Your task to perform on an android device: Add "razer nari" to the cart on bestbuy, then select checkout. Image 0: 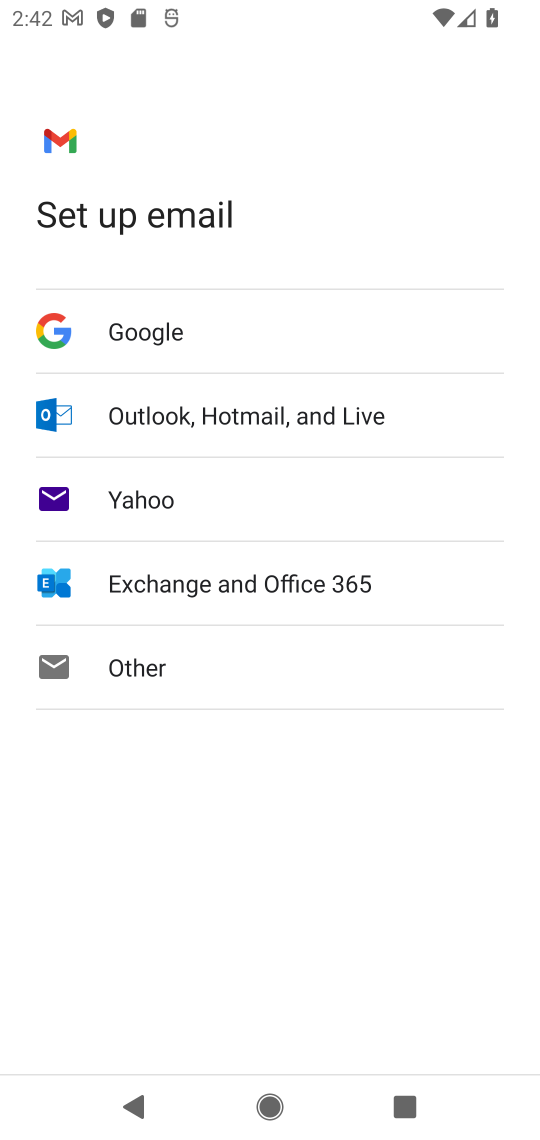
Step 0: press home button
Your task to perform on an android device: Add "razer nari" to the cart on bestbuy, then select checkout. Image 1: 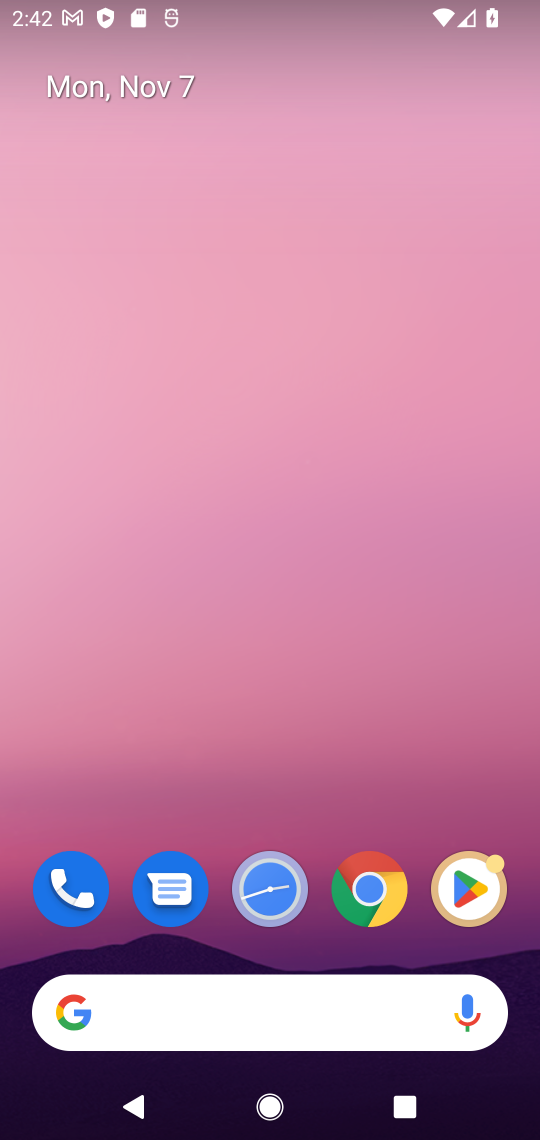
Step 1: click (366, 905)
Your task to perform on an android device: Add "razer nari" to the cart on bestbuy, then select checkout. Image 2: 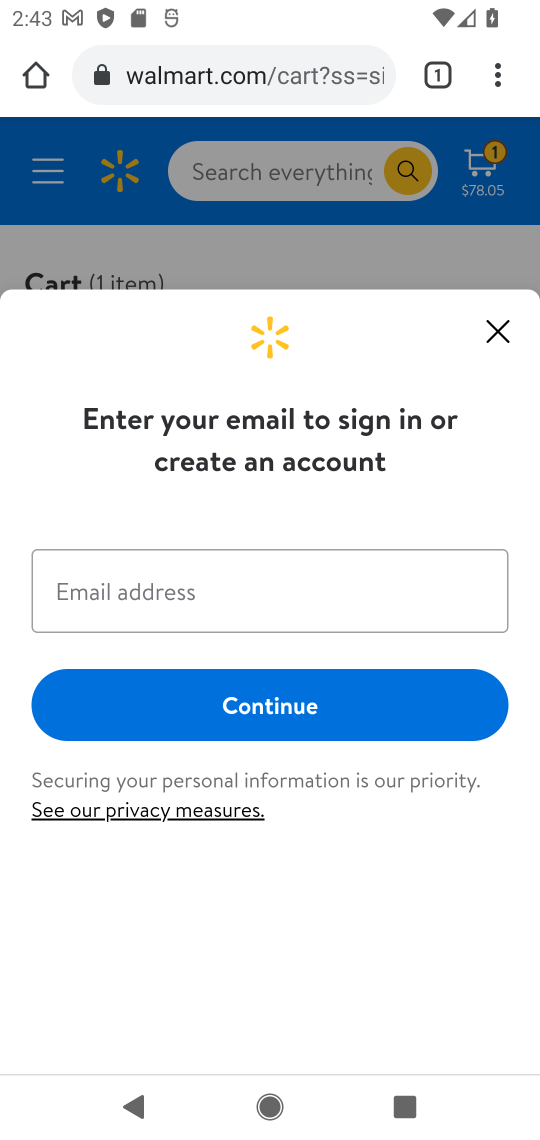
Step 2: click (255, 94)
Your task to perform on an android device: Add "razer nari" to the cart on bestbuy, then select checkout. Image 3: 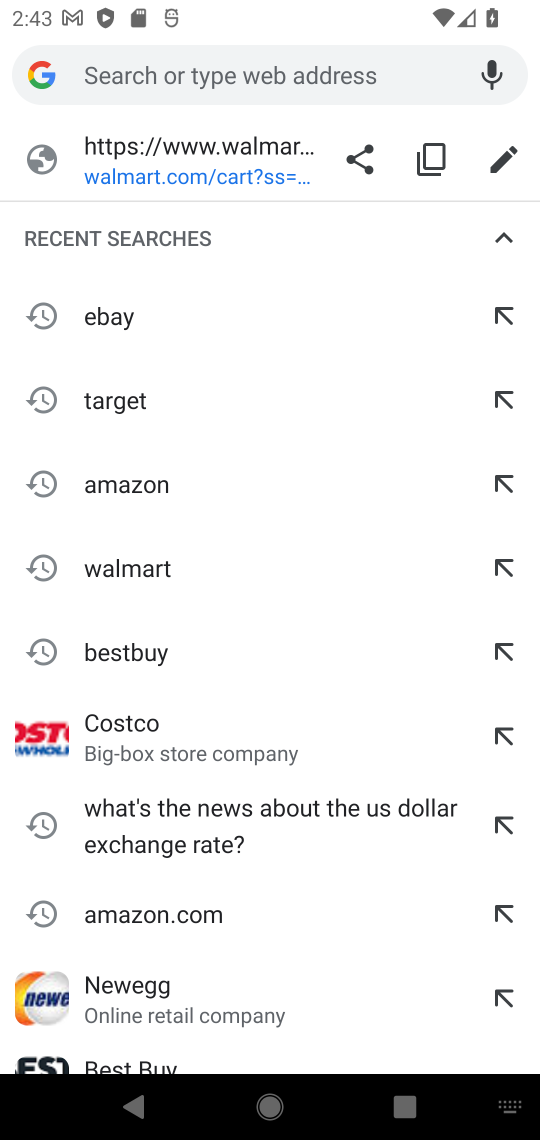
Step 3: type "bestbuy"
Your task to perform on an android device: Add "razer nari" to the cart on bestbuy, then select checkout. Image 4: 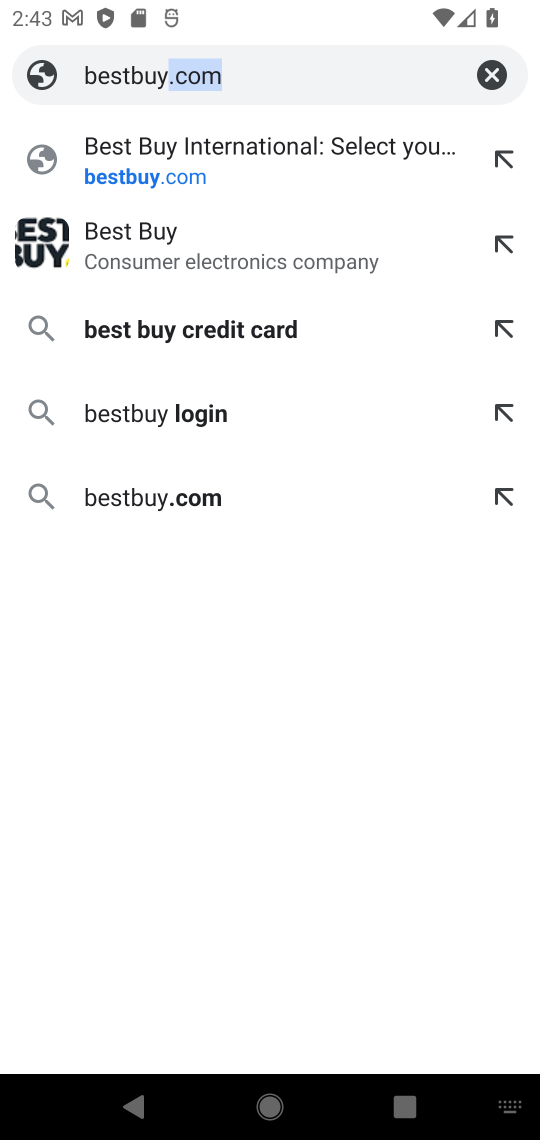
Step 4: click (211, 161)
Your task to perform on an android device: Add "razer nari" to the cart on bestbuy, then select checkout. Image 5: 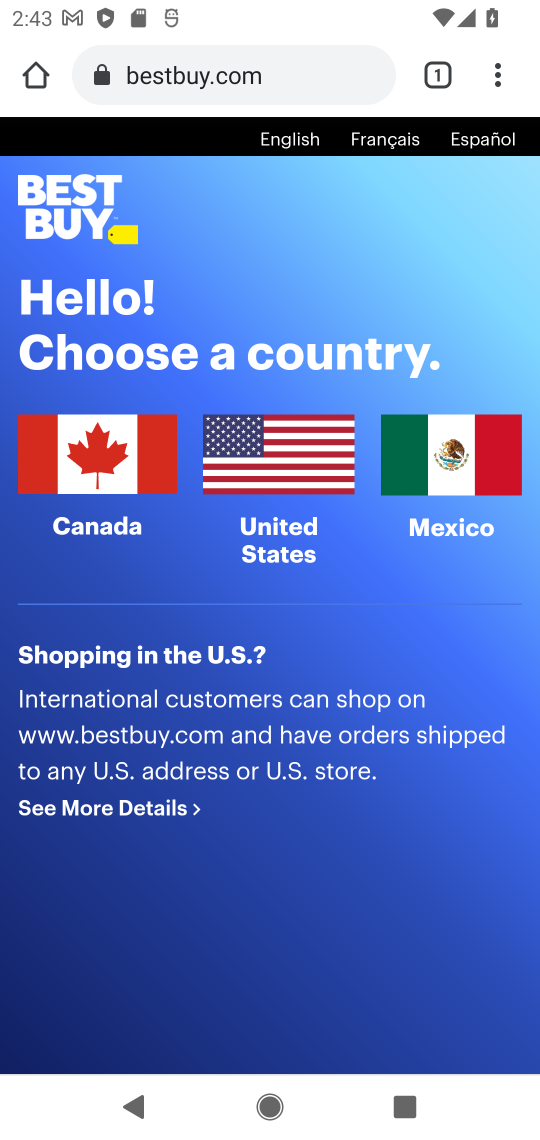
Step 5: click (267, 513)
Your task to perform on an android device: Add "razer nari" to the cart on bestbuy, then select checkout. Image 6: 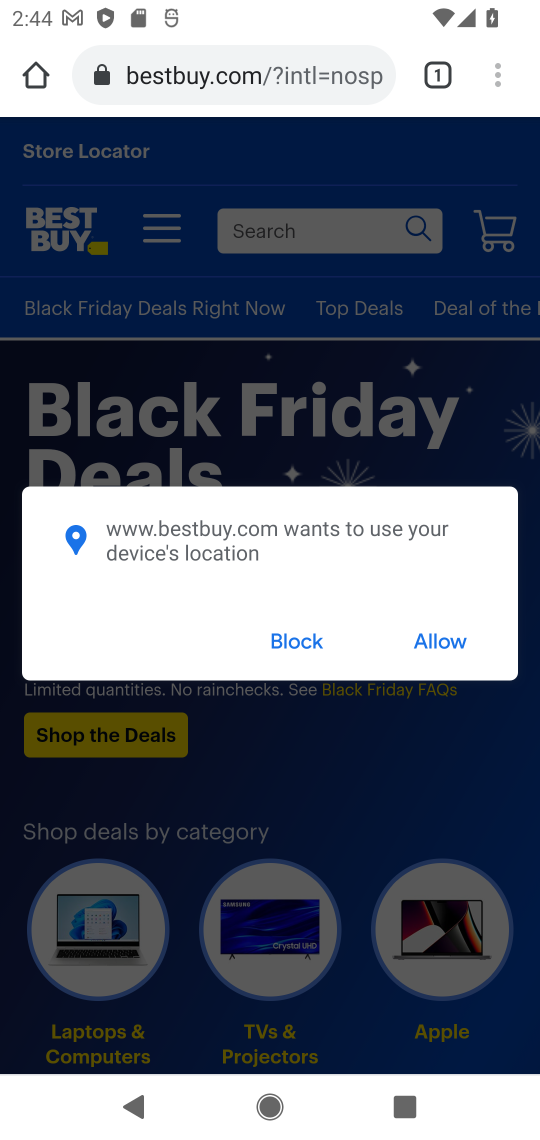
Step 6: click (435, 645)
Your task to perform on an android device: Add "razer nari" to the cart on bestbuy, then select checkout. Image 7: 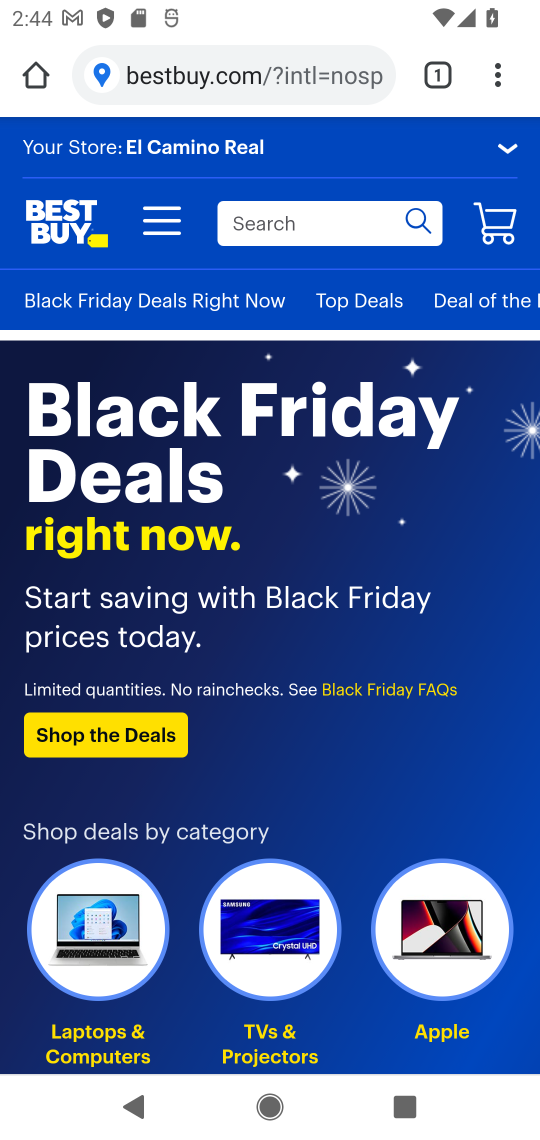
Step 7: click (310, 211)
Your task to perform on an android device: Add "razer nari" to the cart on bestbuy, then select checkout. Image 8: 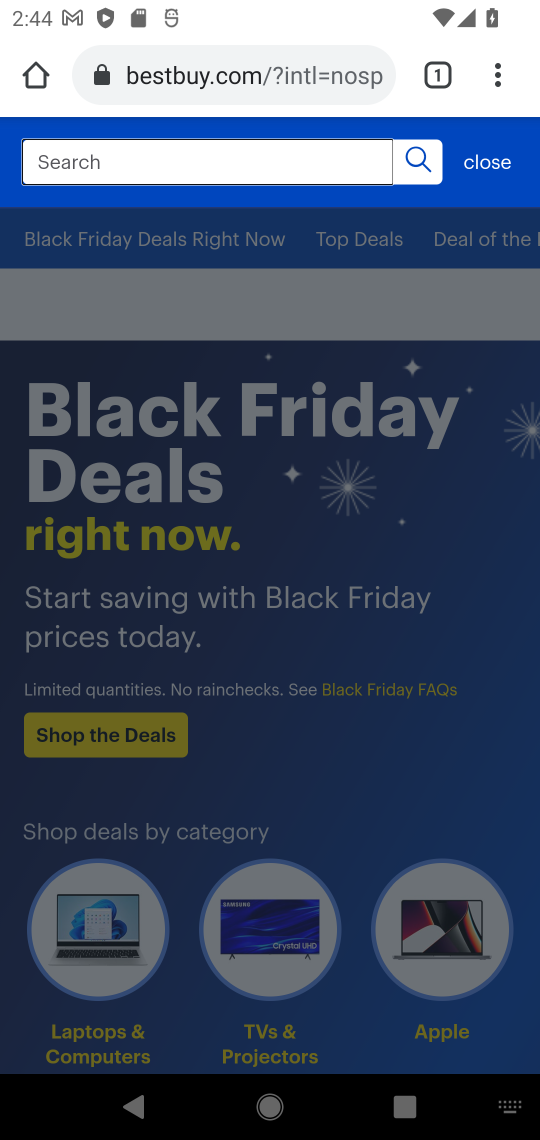
Step 8: type "razer nari"
Your task to perform on an android device: Add "razer nari" to the cart on bestbuy, then select checkout. Image 9: 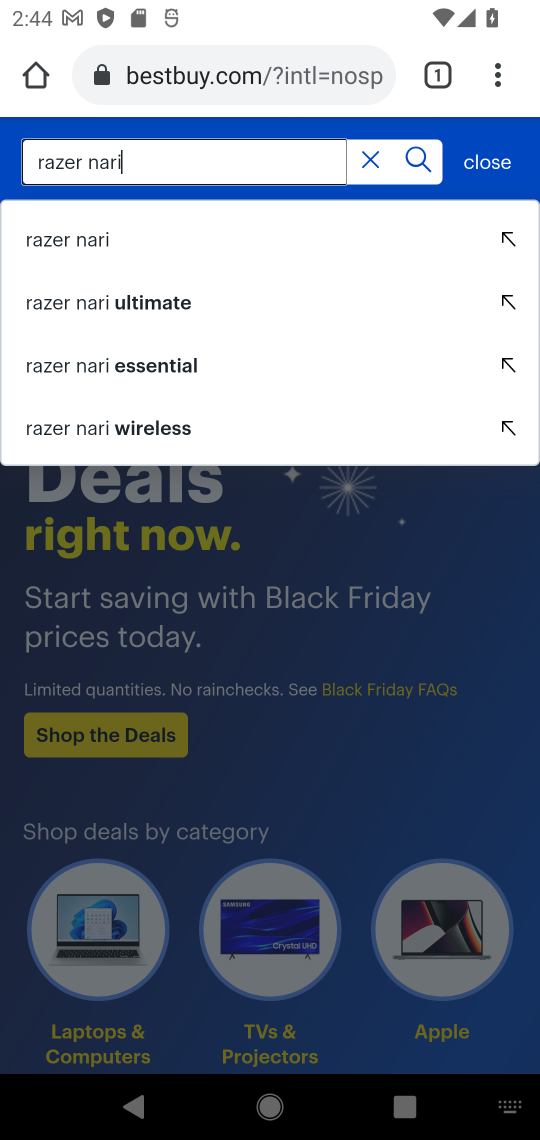
Step 9: type "["
Your task to perform on an android device: Add "razer nari" to the cart on bestbuy, then select checkout. Image 10: 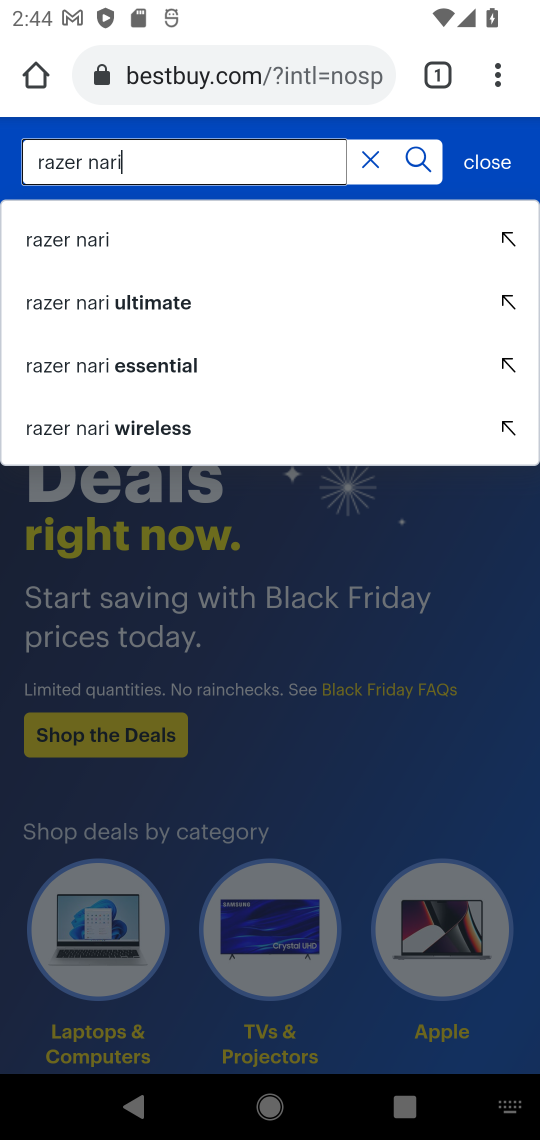
Step 10: press enter
Your task to perform on an android device: Add "razer nari" to the cart on bestbuy, then select checkout. Image 11: 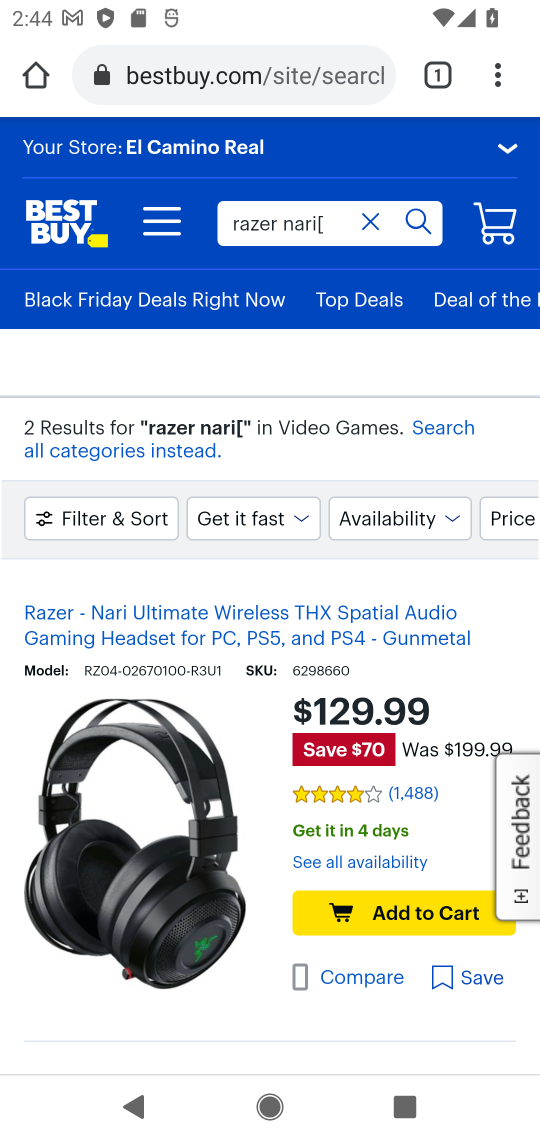
Step 11: click (184, 789)
Your task to perform on an android device: Add "razer nari" to the cart on bestbuy, then select checkout. Image 12: 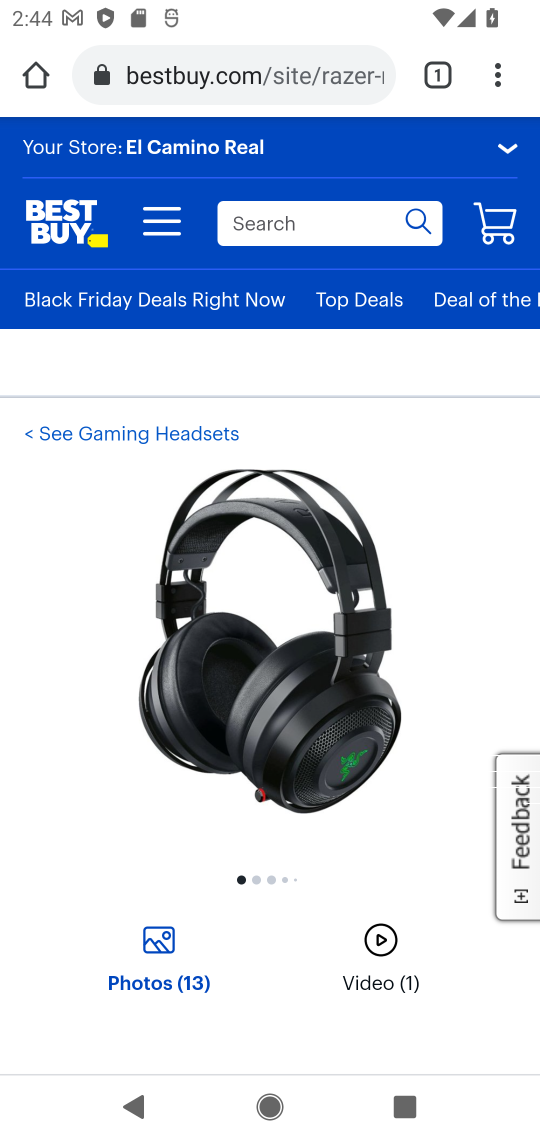
Step 12: drag from (319, 836) to (286, 212)
Your task to perform on an android device: Add "razer nari" to the cart on bestbuy, then select checkout. Image 13: 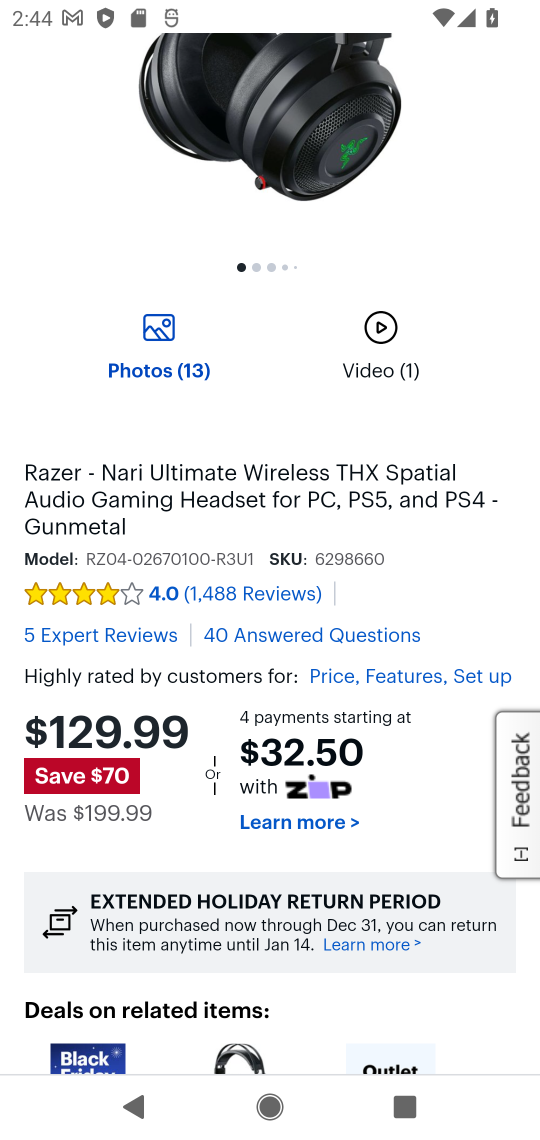
Step 13: drag from (366, 935) to (267, 394)
Your task to perform on an android device: Add "razer nari" to the cart on bestbuy, then select checkout. Image 14: 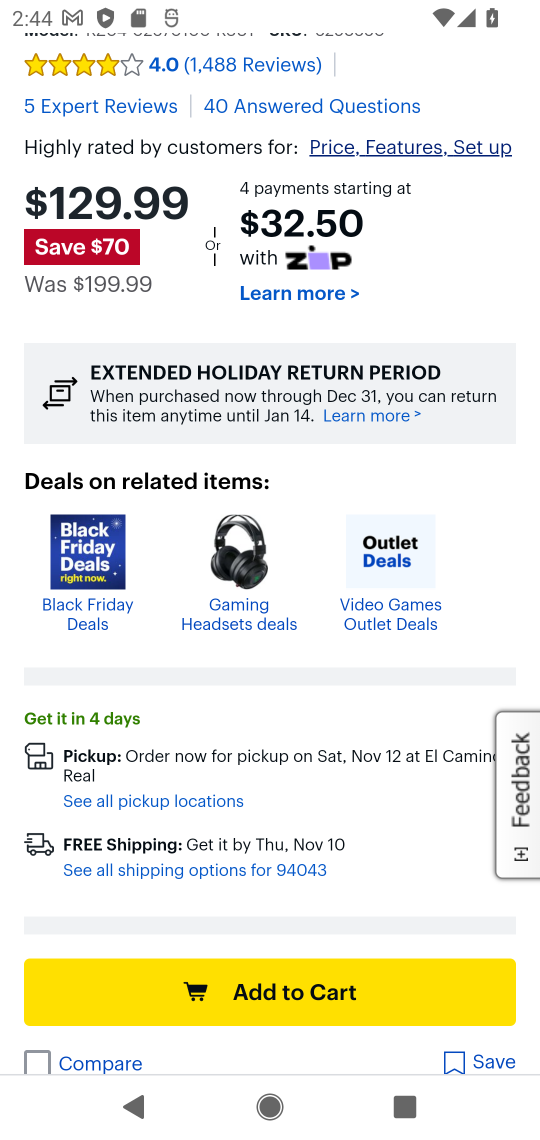
Step 14: click (359, 1001)
Your task to perform on an android device: Add "razer nari" to the cart on bestbuy, then select checkout. Image 15: 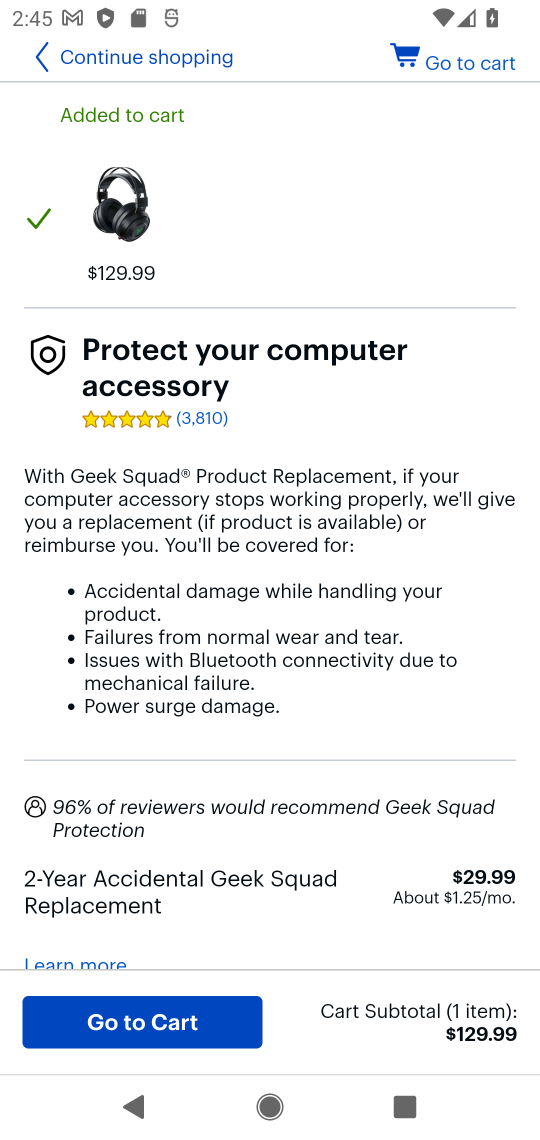
Step 15: click (222, 1044)
Your task to perform on an android device: Add "razer nari" to the cart on bestbuy, then select checkout. Image 16: 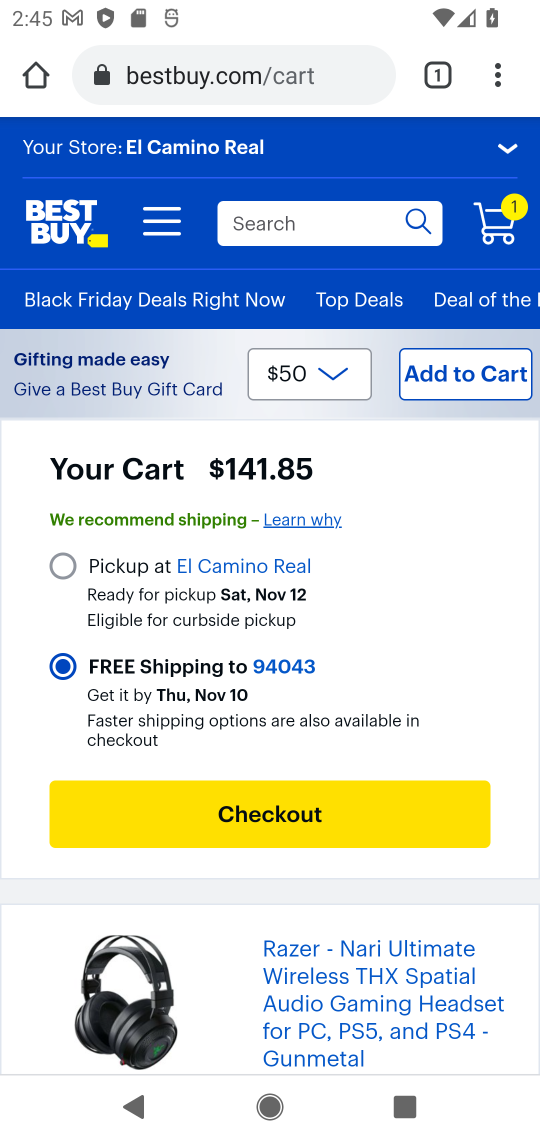
Step 16: click (374, 810)
Your task to perform on an android device: Add "razer nari" to the cart on bestbuy, then select checkout. Image 17: 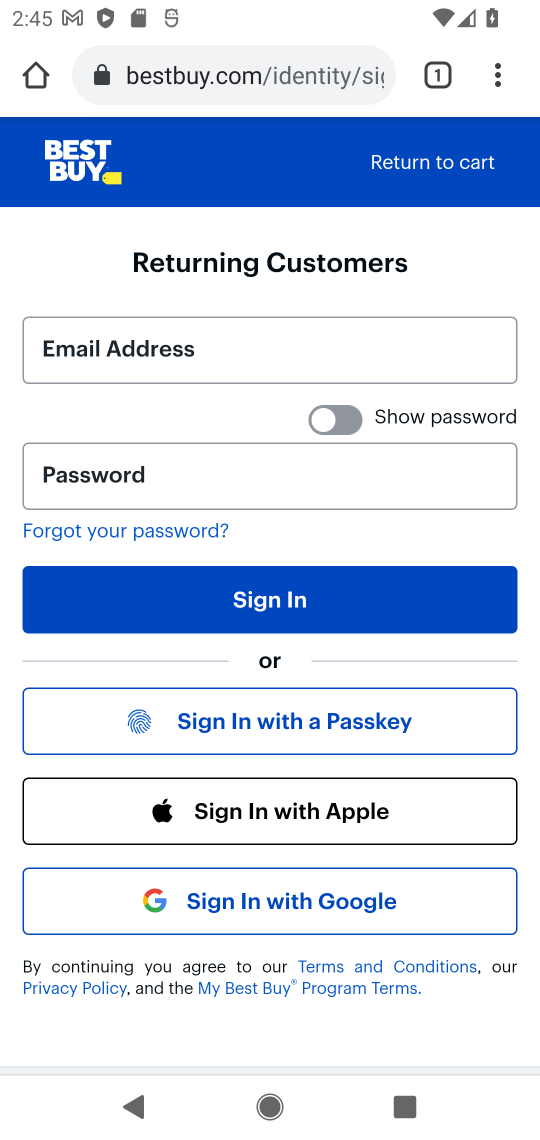
Step 17: task complete